Your task to perform on an android device: Open Wikipedia Image 0: 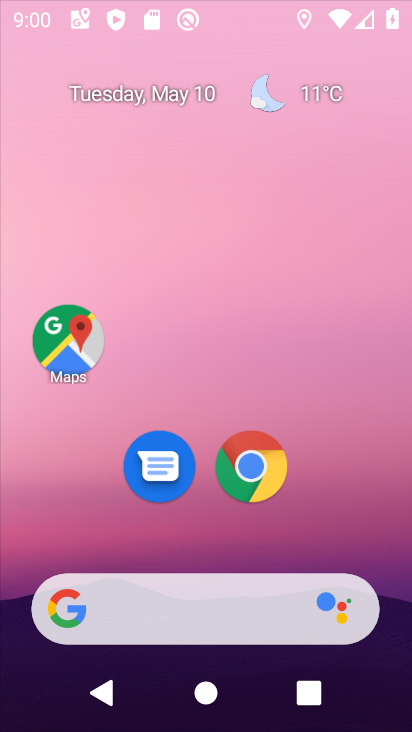
Step 0: press home button
Your task to perform on an android device: Open Wikipedia Image 1: 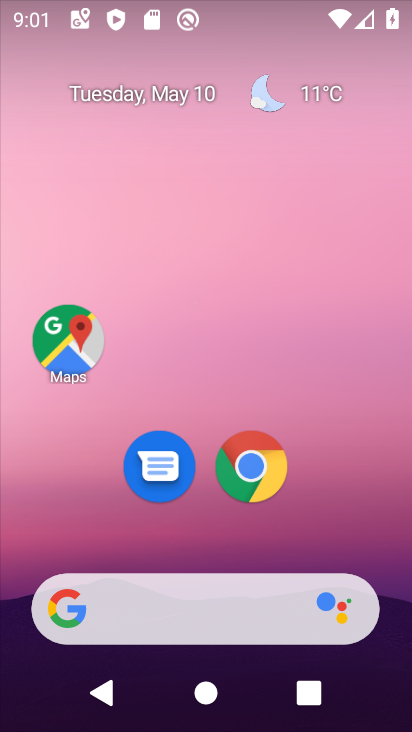
Step 1: drag from (361, 480) to (379, 5)
Your task to perform on an android device: Open Wikipedia Image 2: 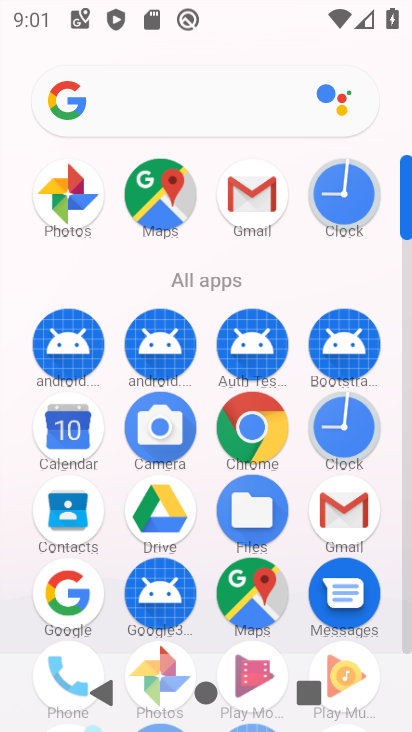
Step 2: drag from (385, 575) to (408, 321)
Your task to perform on an android device: Open Wikipedia Image 3: 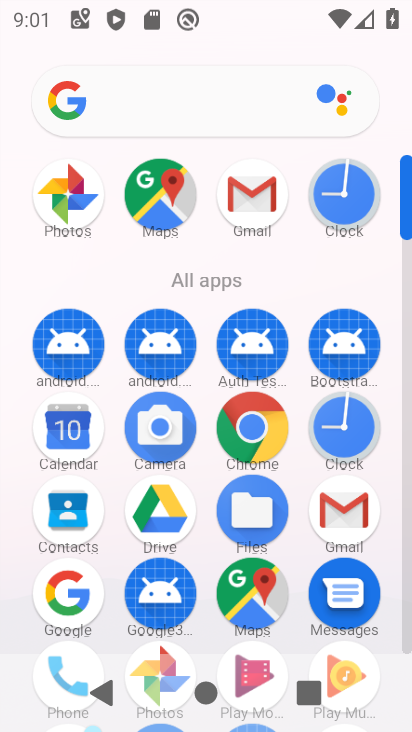
Step 3: drag from (391, 537) to (385, 194)
Your task to perform on an android device: Open Wikipedia Image 4: 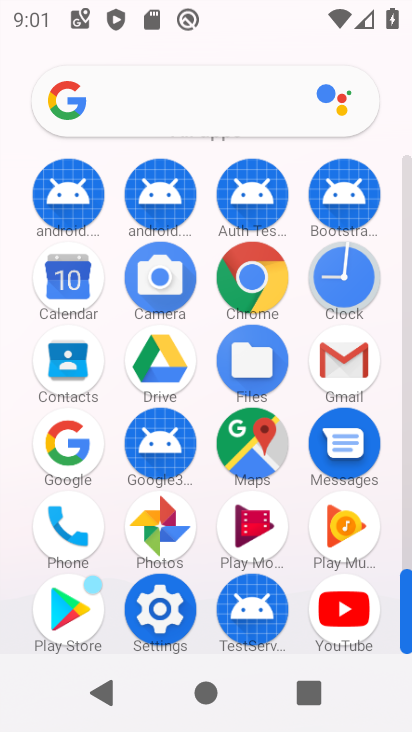
Step 4: click (175, 589)
Your task to perform on an android device: Open Wikipedia Image 5: 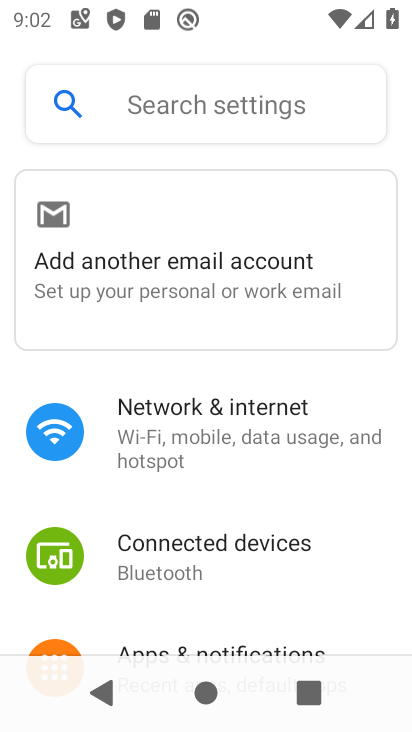
Step 5: press home button
Your task to perform on an android device: Open Wikipedia Image 6: 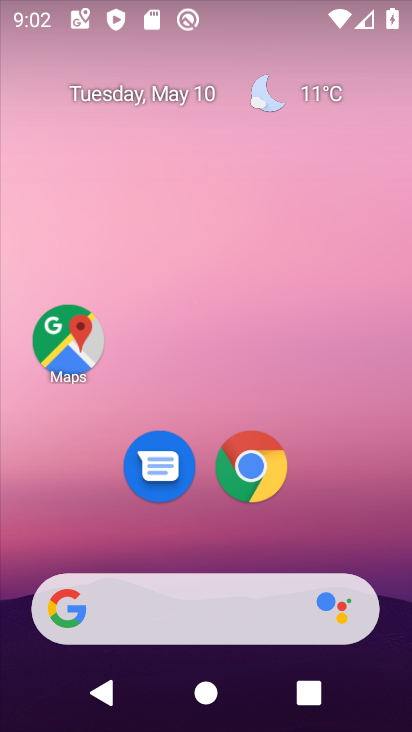
Step 6: click (276, 469)
Your task to perform on an android device: Open Wikipedia Image 7: 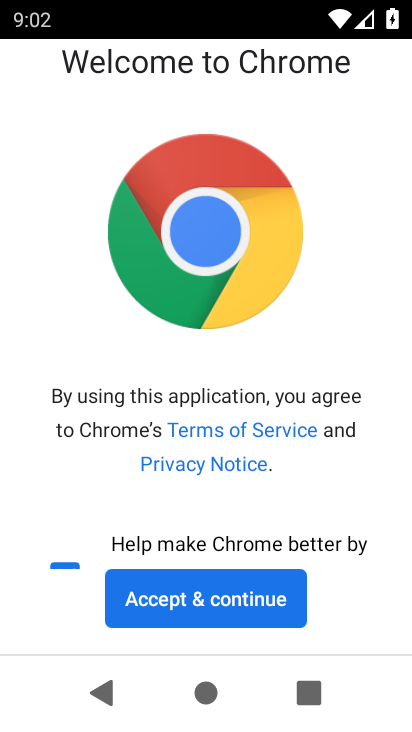
Step 7: click (259, 607)
Your task to perform on an android device: Open Wikipedia Image 8: 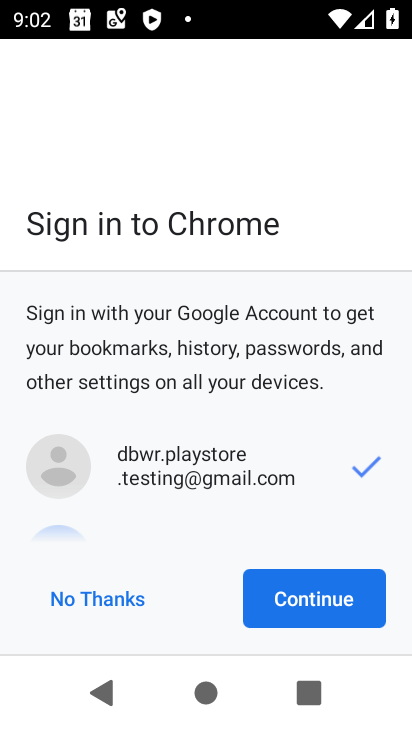
Step 8: click (91, 613)
Your task to perform on an android device: Open Wikipedia Image 9: 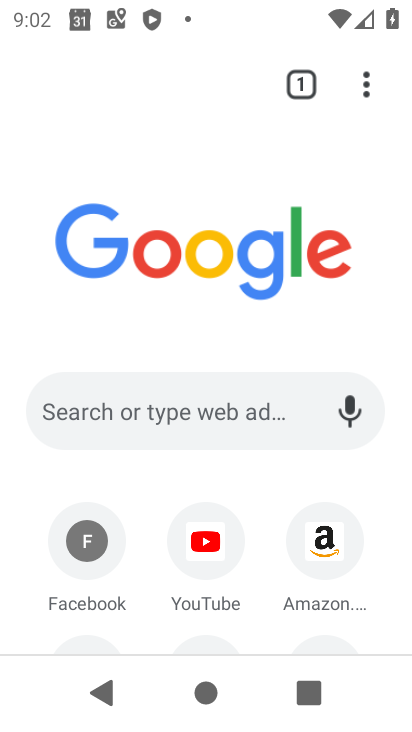
Step 9: drag from (380, 555) to (325, 283)
Your task to perform on an android device: Open Wikipedia Image 10: 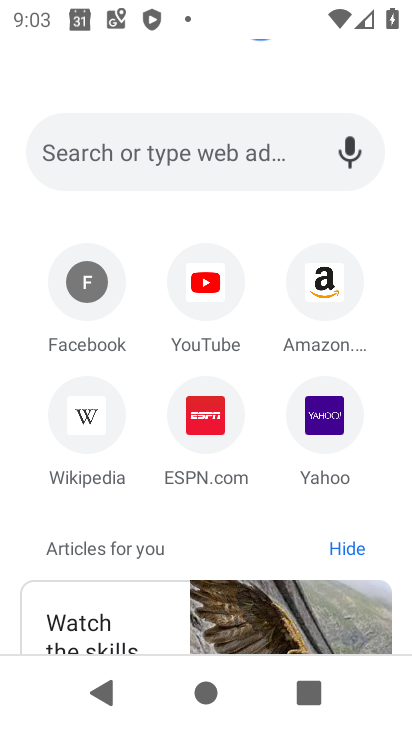
Step 10: click (98, 433)
Your task to perform on an android device: Open Wikipedia Image 11: 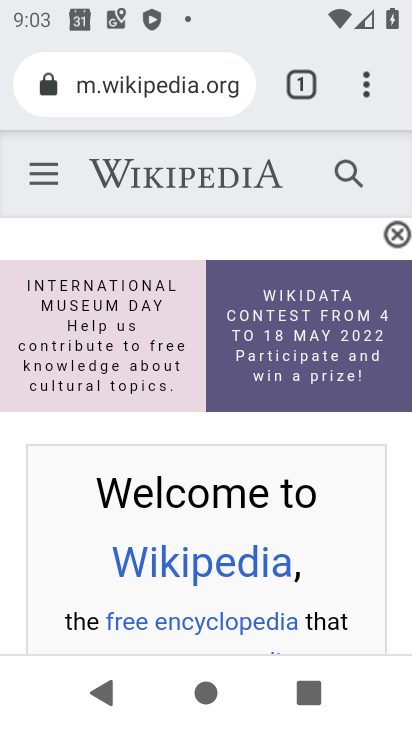
Step 11: task complete